Your task to perform on an android device: delete the emails in spam in the gmail app Image 0: 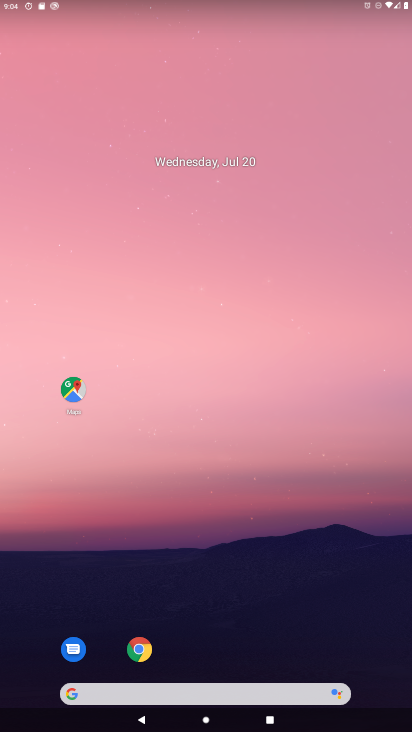
Step 0: drag from (166, 685) to (189, 177)
Your task to perform on an android device: delete the emails in spam in the gmail app Image 1: 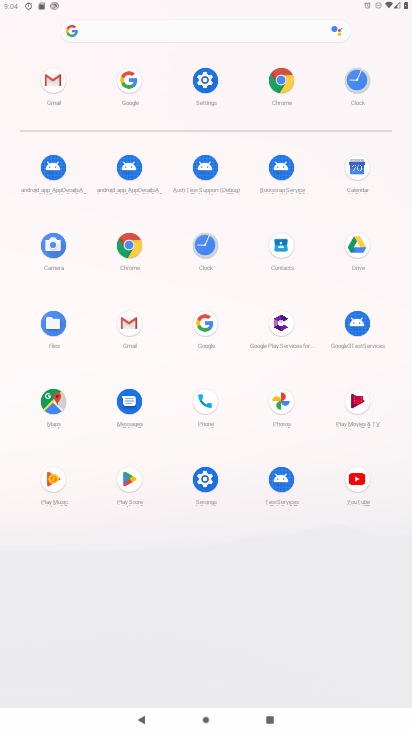
Step 1: click (53, 78)
Your task to perform on an android device: delete the emails in spam in the gmail app Image 2: 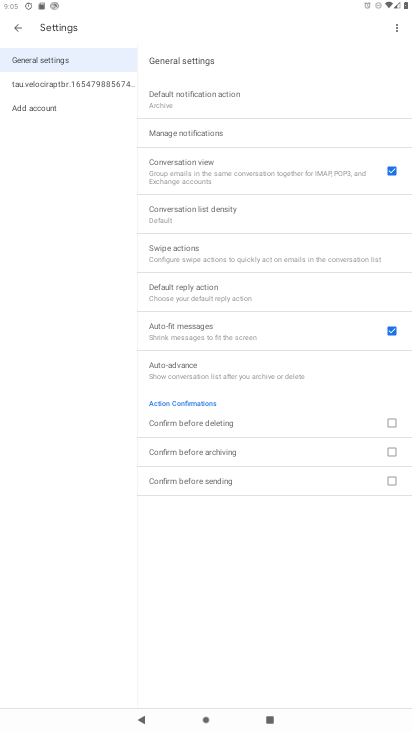
Step 2: press back button
Your task to perform on an android device: delete the emails in spam in the gmail app Image 3: 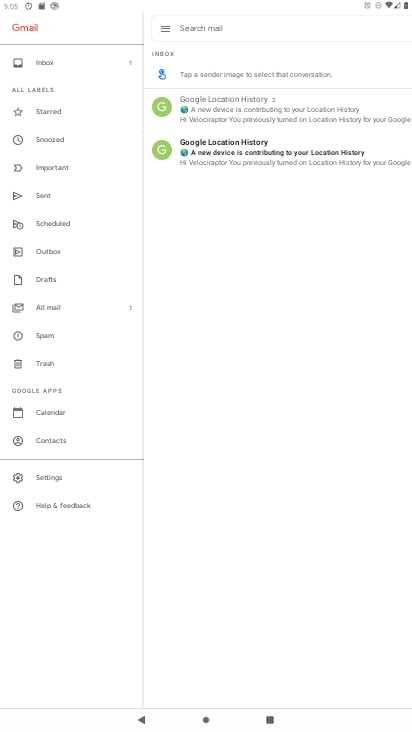
Step 3: click (45, 338)
Your task to perform on an android device: delete the emails in spam in the gmail app Image 4: 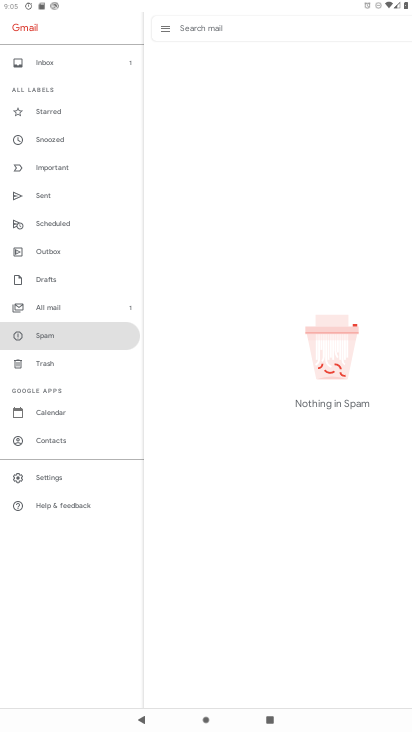
Step 4: task complete